Your task to perform on an android device: change your default location settings in chrome Image 0: 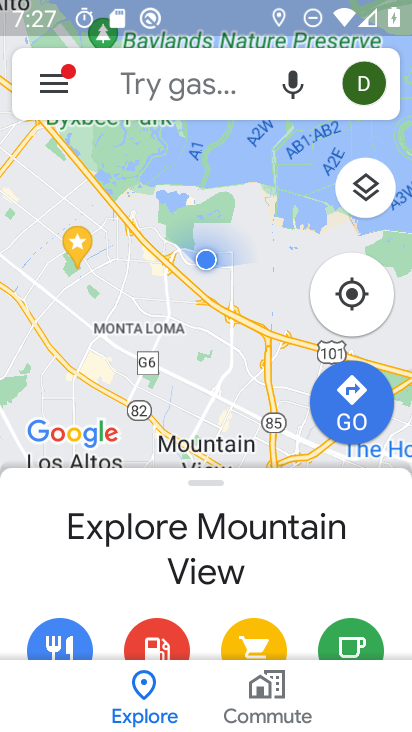
Step 0: press home button
Your task to perform on an android device: change your default location settings in chrome Image 1: 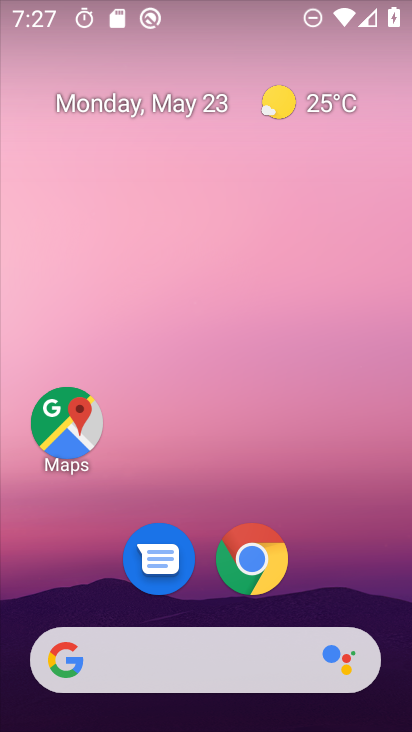
Step 1: drag from (394, 642) to (290, 37)
Your task to perform on an android device: change your default location settings in chrome Image 2: 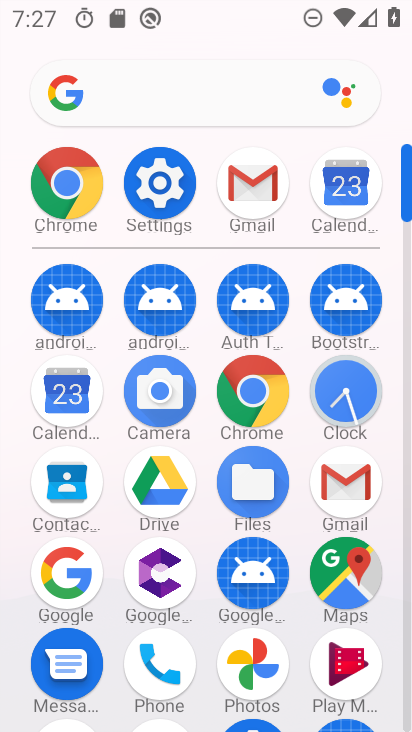
Step 2: click (65, 184)
Your task to perform on an android device: change your default location settings in chrome Image 3: 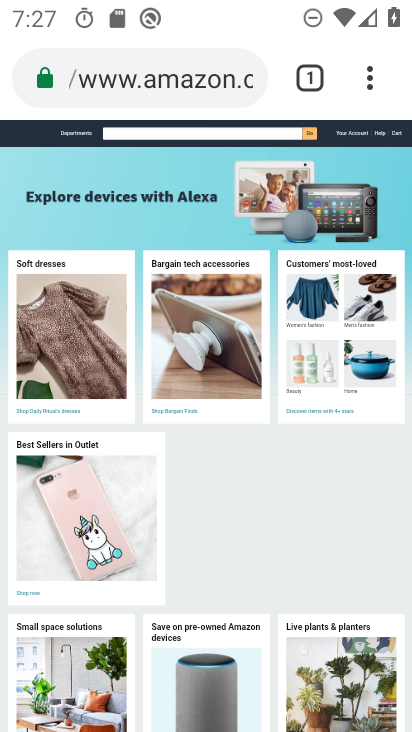
Step 3: press back button
Your task to perform on an android device: change your default location settings in chrome Image 4: 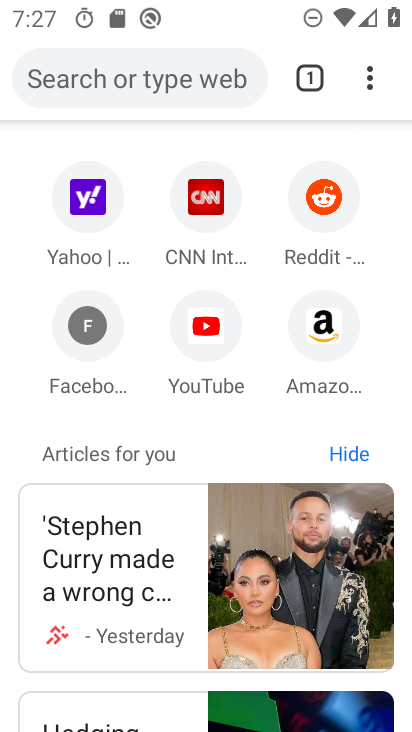
Step 4: click (367, 78)
Your task to perform on an android device: change your default location settings in chrome Image 5: 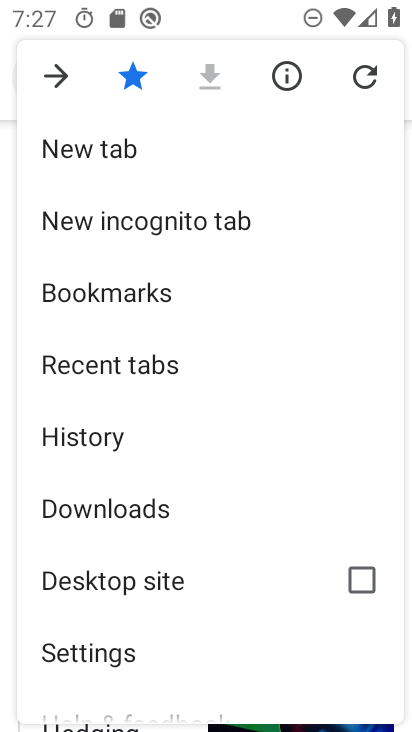
Step 5: click (90, 638)
Your task to perform on an android device: change your default location settings in chrome Image 6: 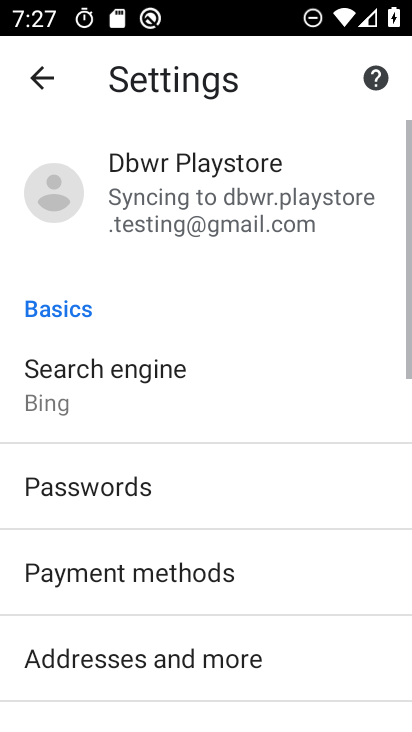
Step 6: click (143, 394)
Your task to perform on an android device: change your default location settings in chrome Image 7: 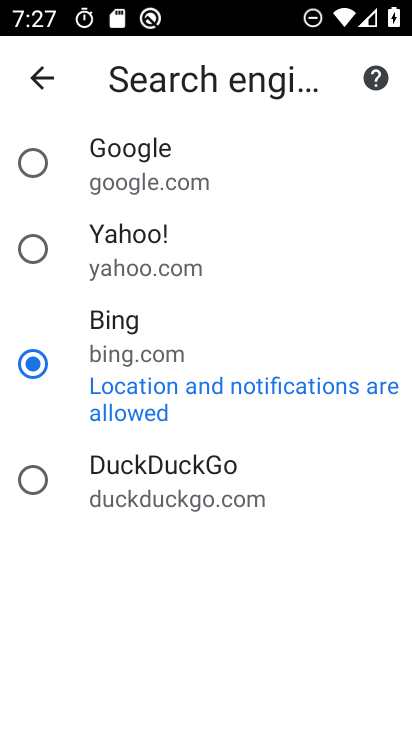
Step 7: click (110, 166)
Your task to perform on an android device: change your default location settings in chrome Image 8: 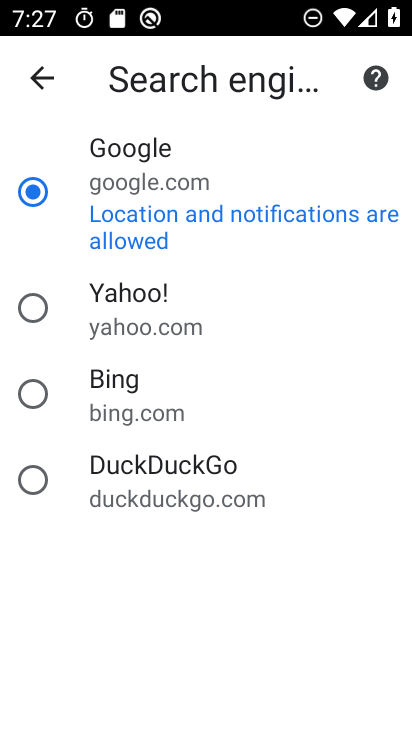
Step 8: task complete